Your task to perform on an android device: Toggle the flashlight Image 0: 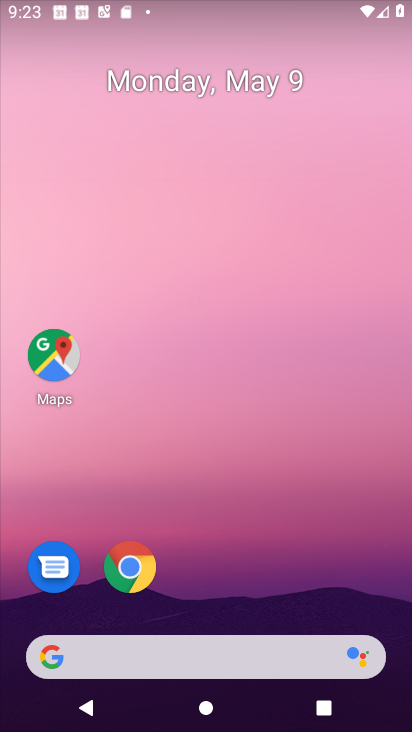
Step 0: click (304, 161)
Your task to perform on an android device: Toggle the flashlight Image 1: 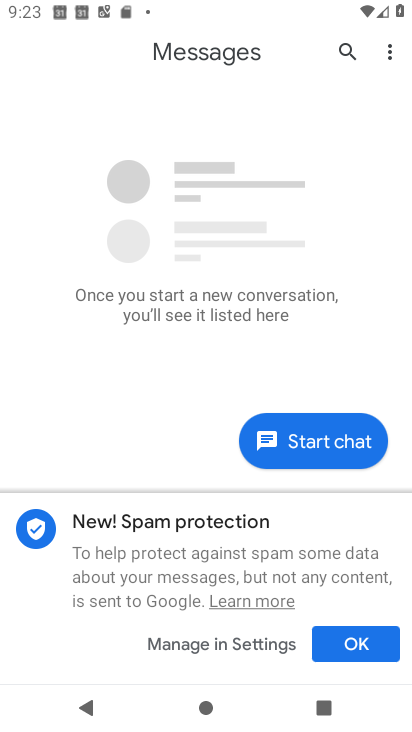
Step 1: press home button
Your task to perform on an android device: Toggle the flashlight Image 2: 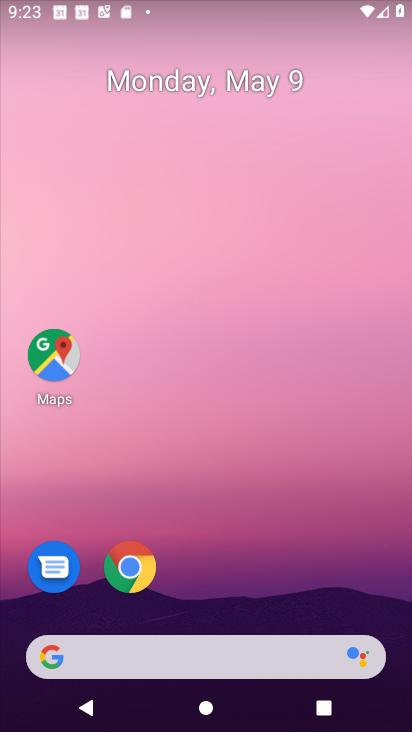
Step 2: drag from (210, 613) to (285, 85)
Your task to perform on an android device: Toggle the flashlight Image 3: 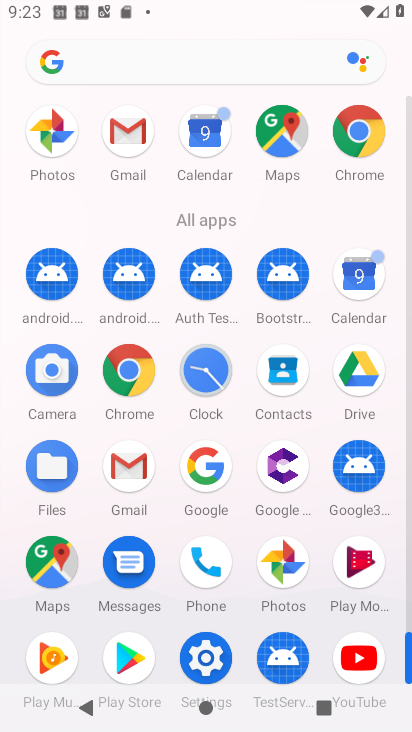
Step 3: click (214, 654)
Your task to perform on an android device: Toggle the flashlight Image 4: 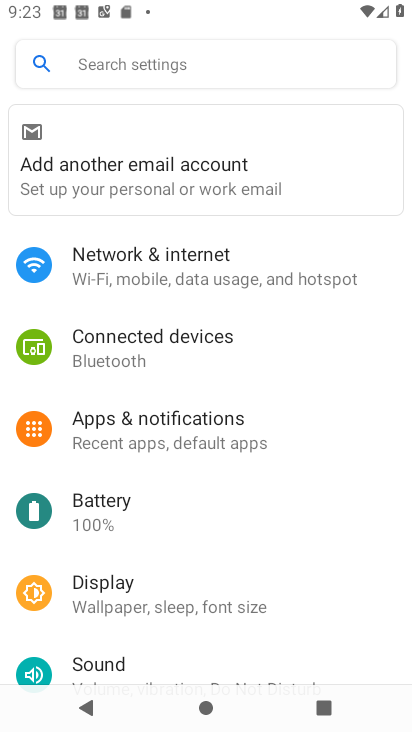
Step 4: click (156, 57)
Your task to perform on an android device: Toggle the flashlight Image 5: 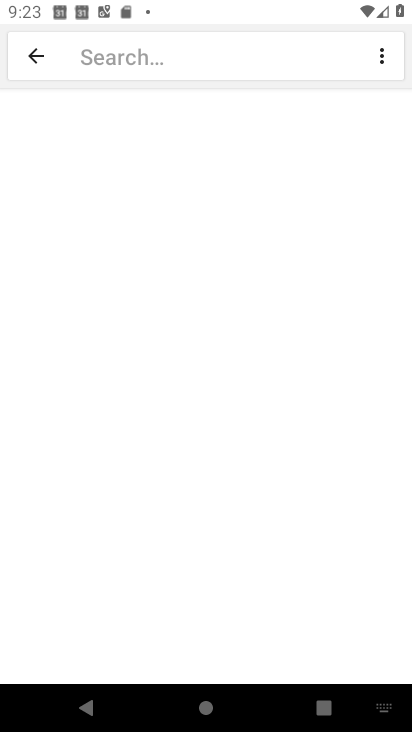
Step 5: type "flashlight"
Your task to perform on an android device: Toggle the flashlight Image 6: 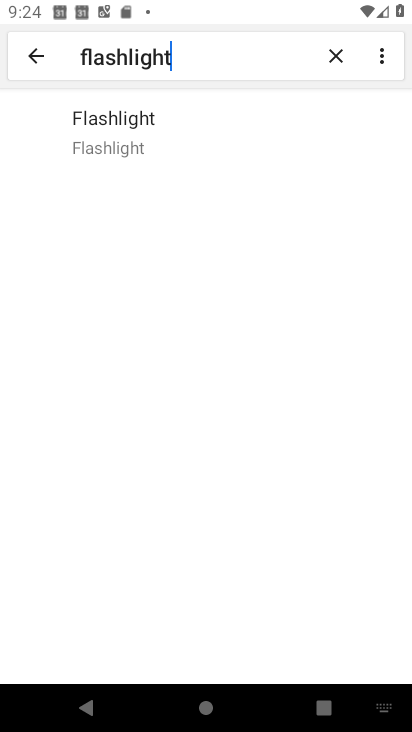
Step 6: click (249, 130)
Your task to perform on an android device: Toggle the flashlight Image 7: 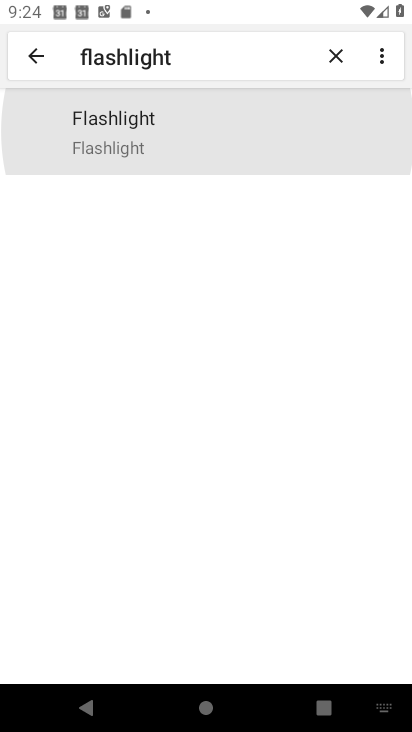
Step 7: task complete